Your task to perform on an android device: open app "Truecaller" (install if not already installed), go to login, and select forgot password Image 0: 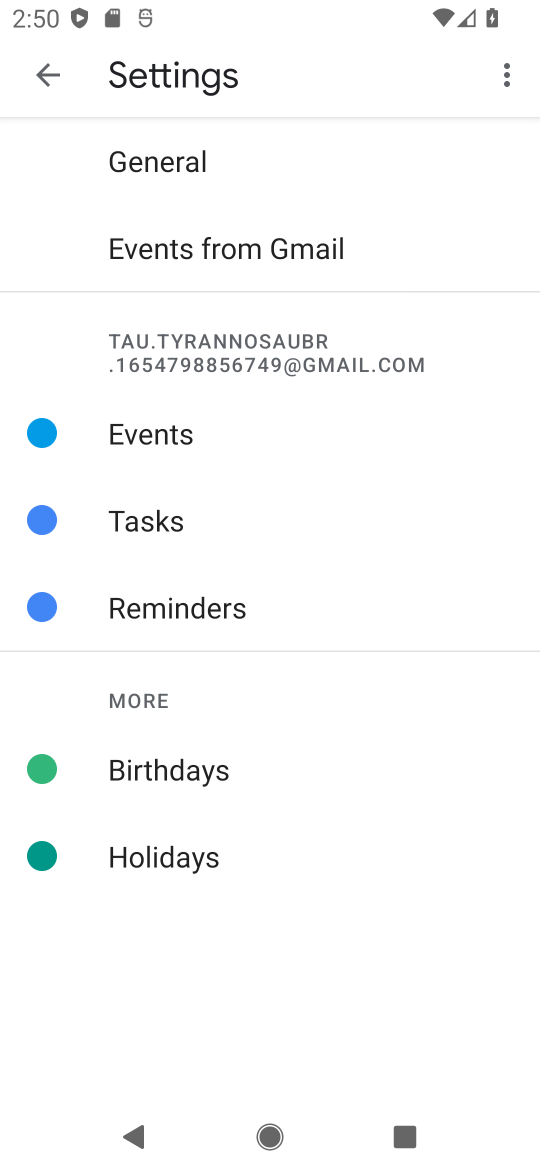
Step 0: press back button
Your task to perform on an android device: open app "Truecaller" (install if not already installed), go to login, and select forgot password Image 1: 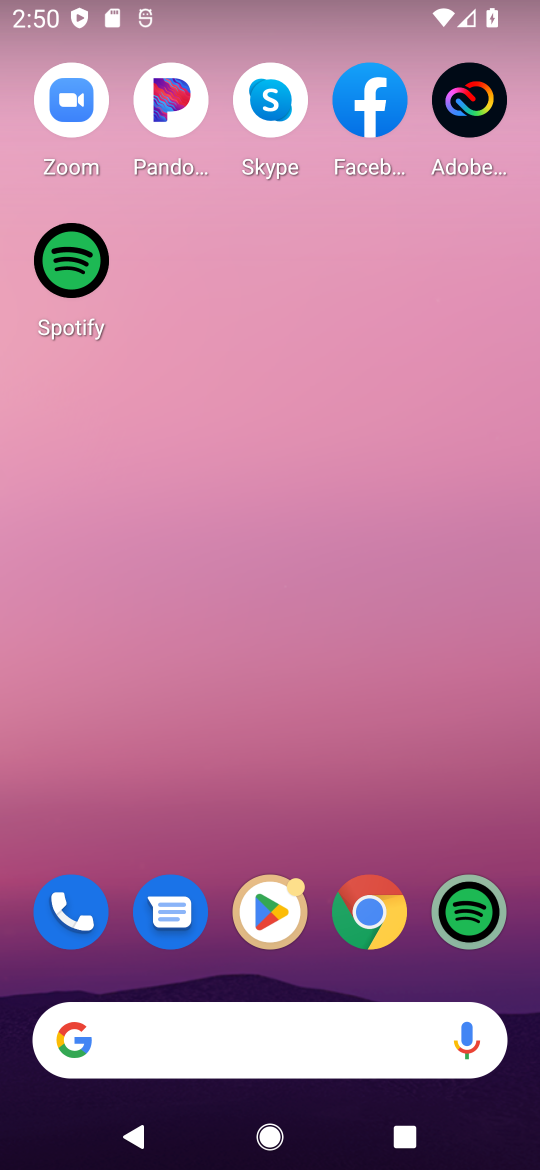
Step 1: drag from (230, 1055) to (260, 98)
Your task to perform on an android device: open app "Truecaller" (install if not already installed), go to login, and select forgot password Image 2: 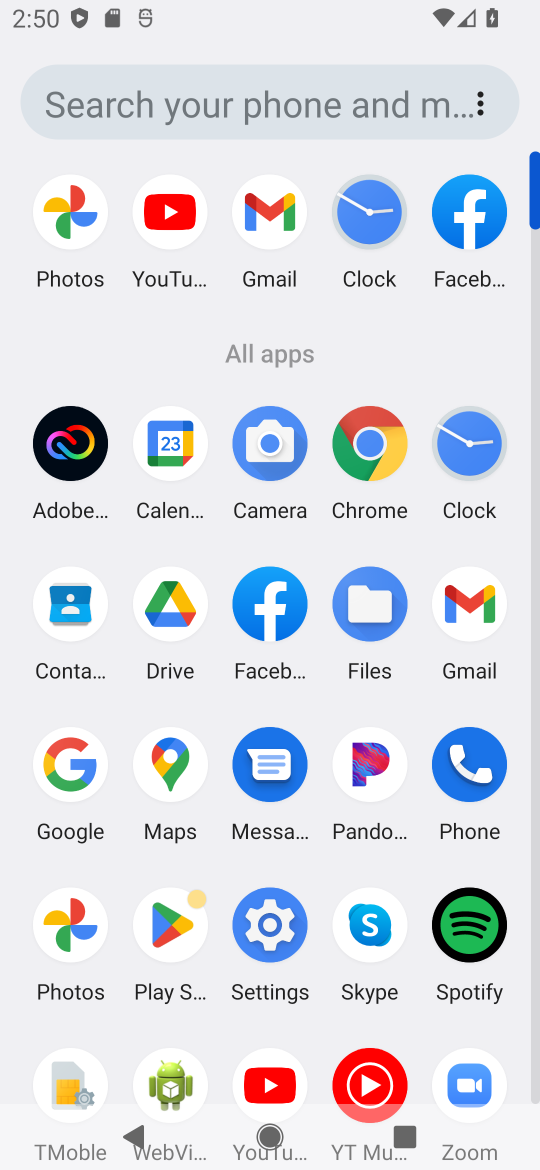
Step 2: click (177, 924)
Your task to perform on an android device: open app "Truecaller" (install if not already installed), go to login, and select forgot password Image 3: 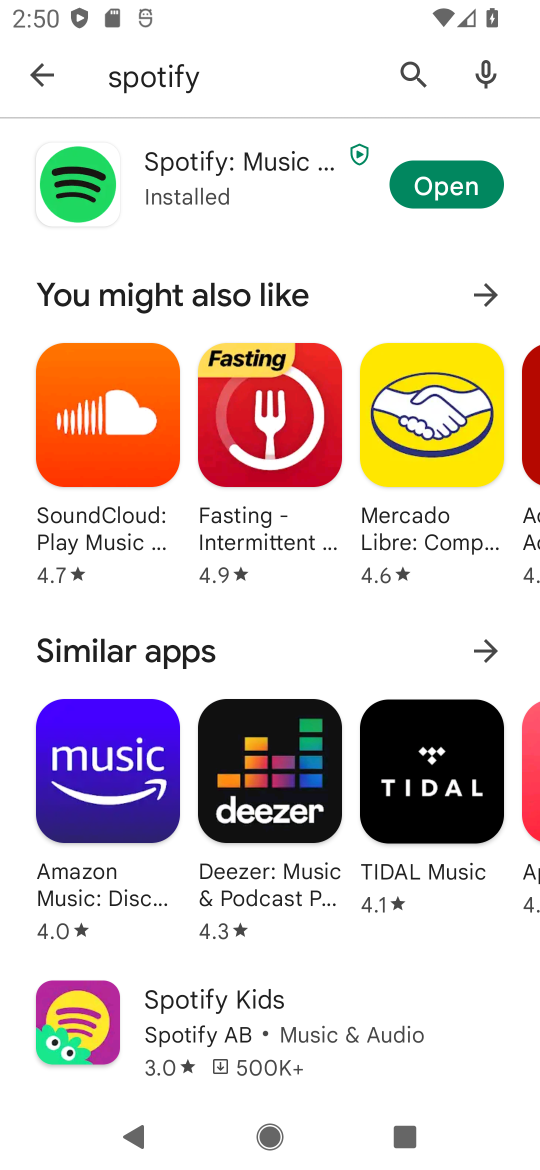
Step 3: press back button
Your task to perform on an android device: open app "Truecaller" (install if not already installed), go to login, and select forgot password Image 4: 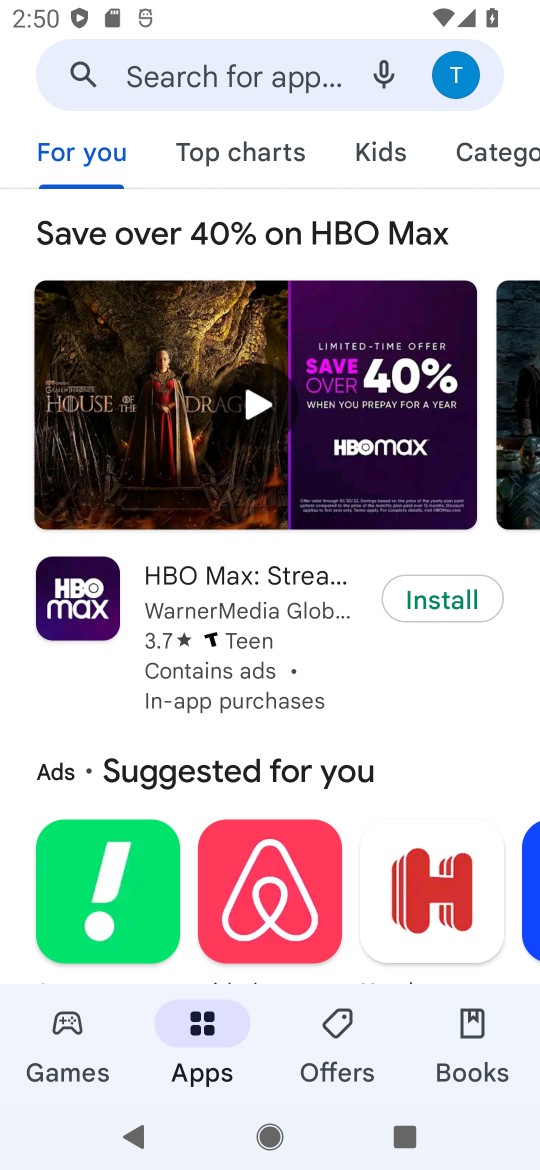
Step 4: click (204, 68)
Your task to perform on an android device: open app "Truecaller" (install if not already installed), go to login, and select forgot password Image 5: 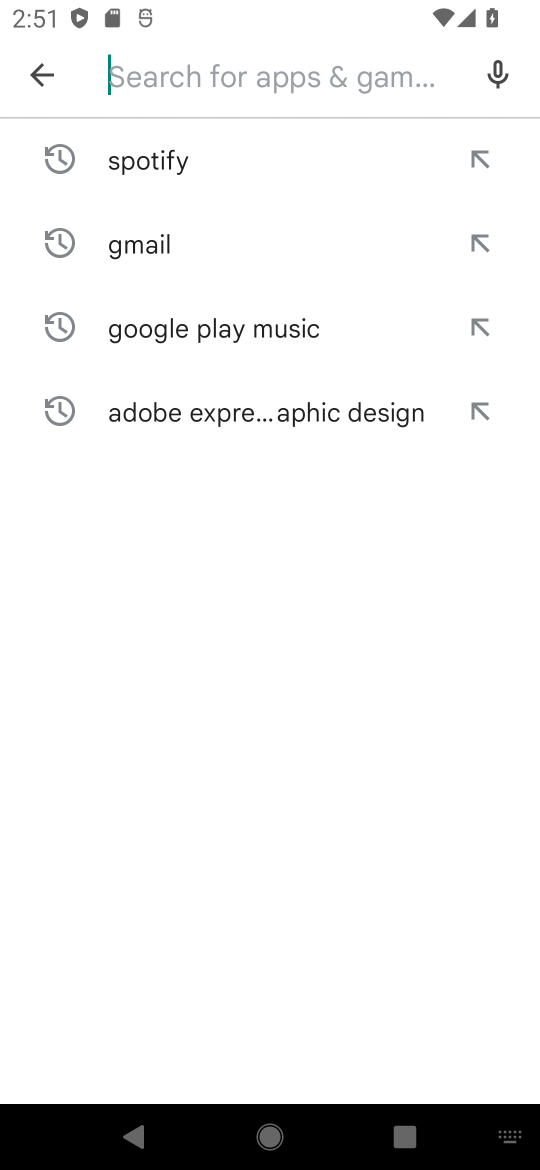
Step 5: type "Truecaller"
Your task to perform on an android device: open app "Truecaller" (install if not already installed), go to login, and select forgot password Image 6: 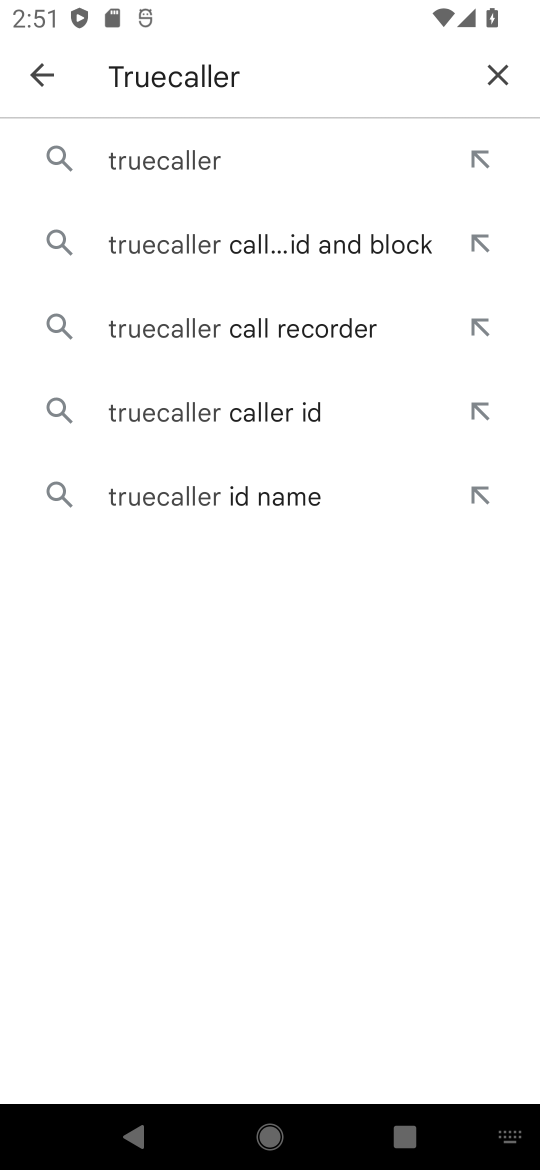
Step 6: click (157, 156)
Your task to perform on an android device: open app "Truecaller" (install if not already installed), go to login, and select forgot password Image 7: 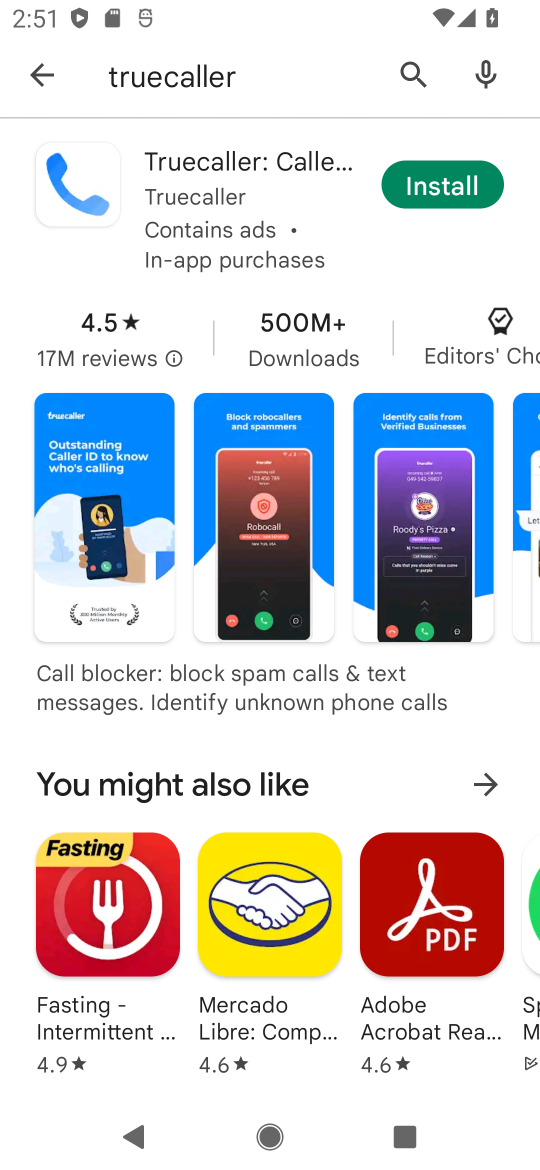
Step 7: click (434, 191)
Your task to perform on an android device: open app "Truecaller" (install if not already installed), go to login, and select forgot password Image 8: 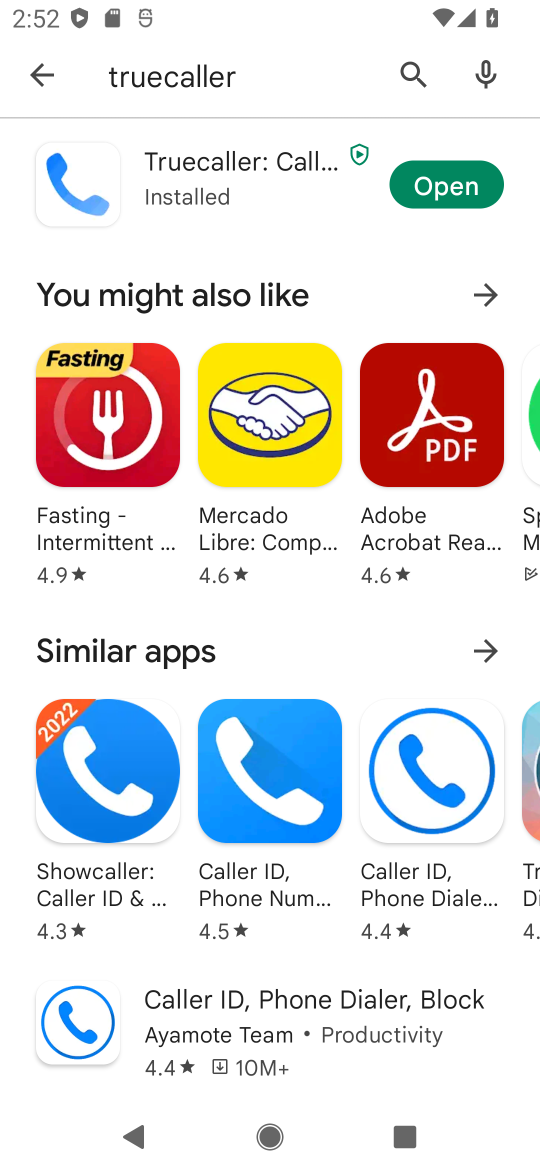
Step 8: click (434, 191)
Your task to perform on an android device: open app "Truecaller" (install if not already installed), go to login, and select forgot password Image 9: 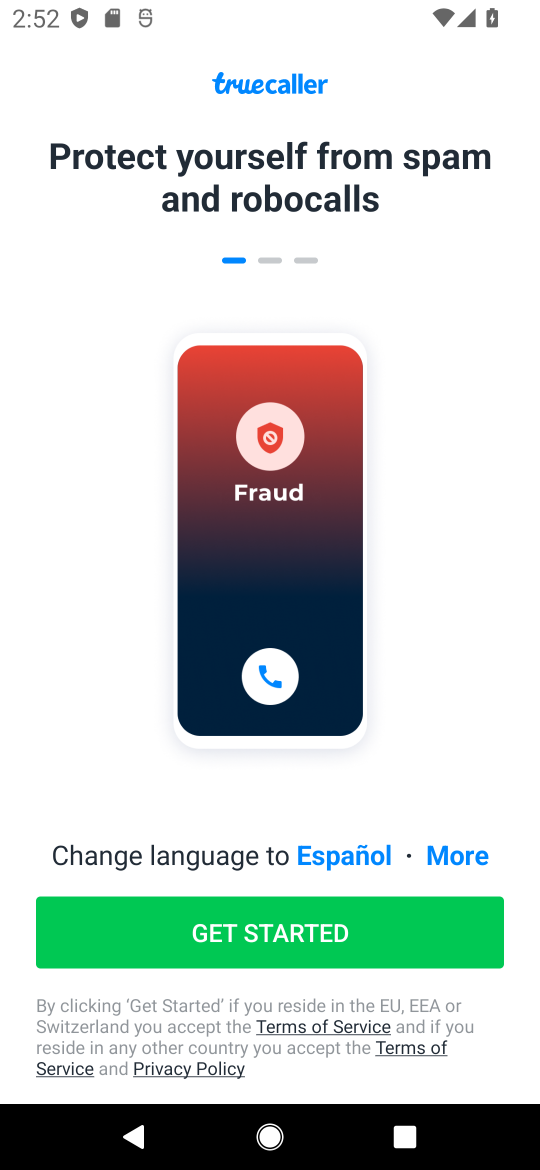
Step 9: click (469, 859)
Your task to perform on an android device: open app "Truecaller" (install if not already installed), go to login, and select forgot password Image 10: 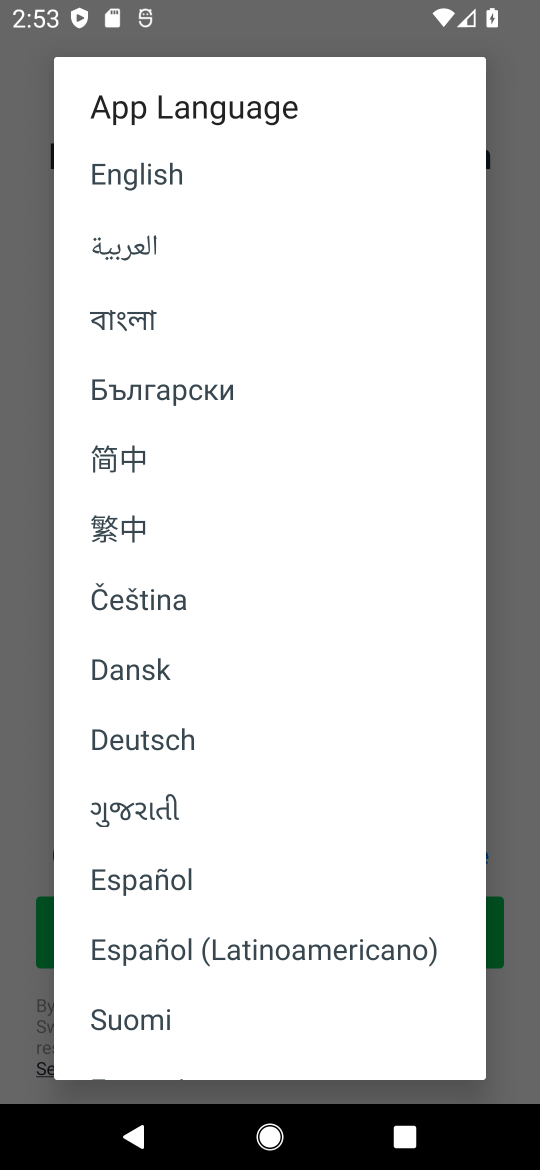
Step 10: task complete